Your task to perform on an android device: Open Reddit.com Image 0: 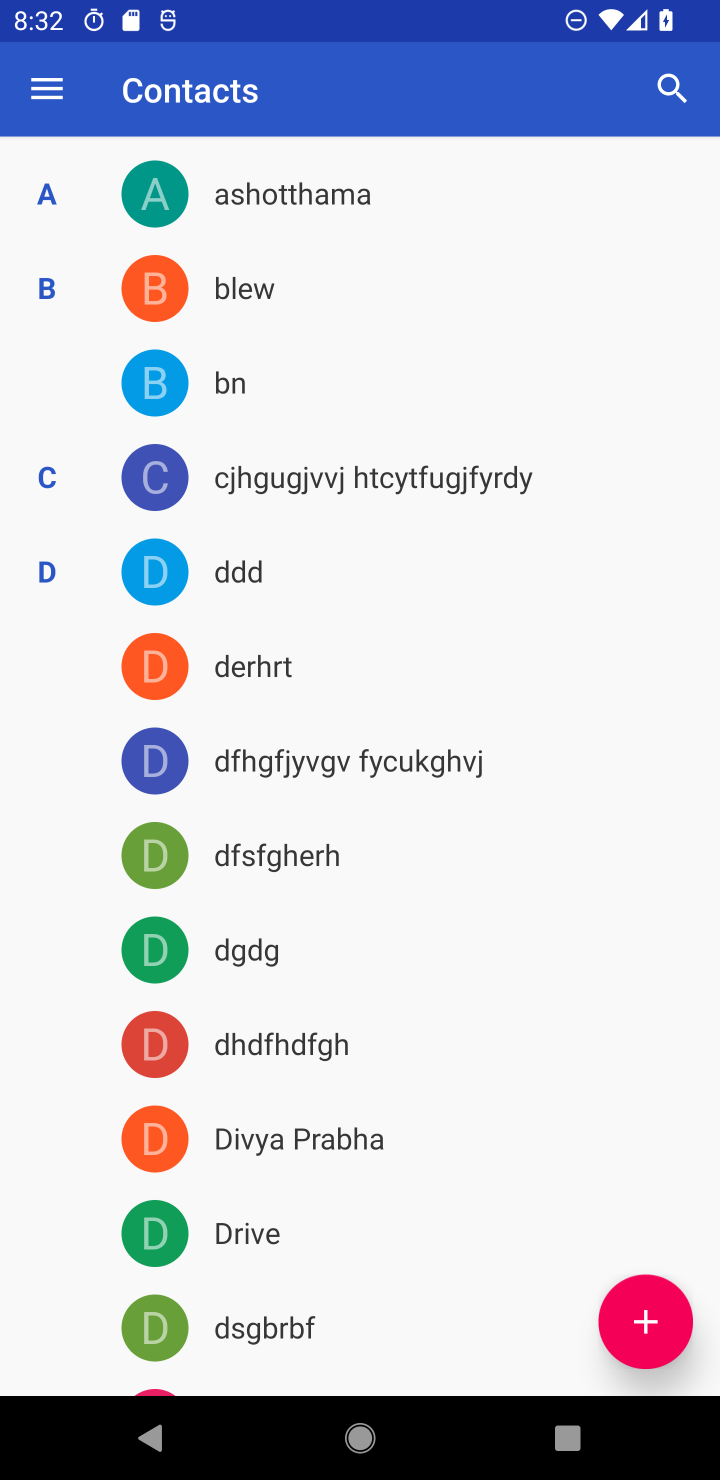
Step 0: press home button
Your task to perform on an android device: Open Reddit.com Image 1: 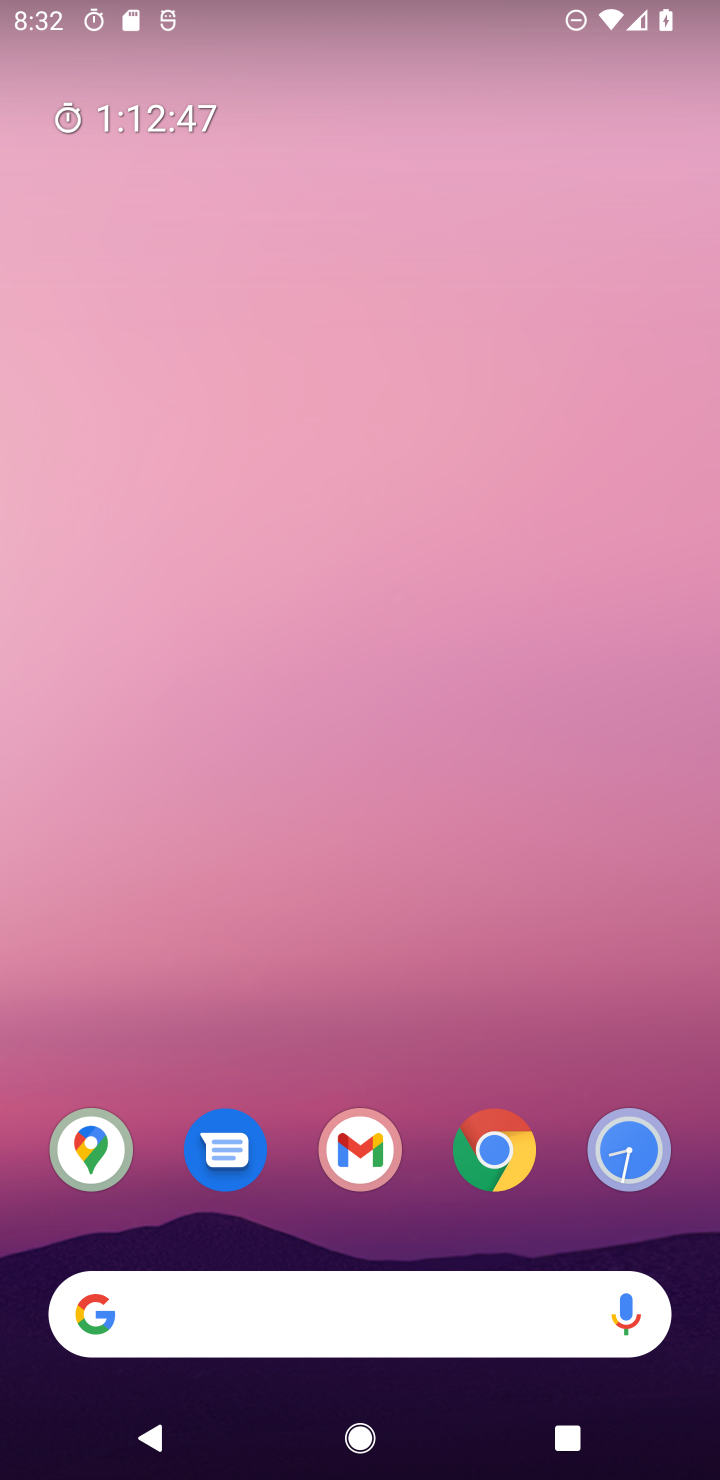
Step 1: drag from (207, 1071) to (210, 19)
Your task to perform on an android device: Open Reddit.com Image 2: 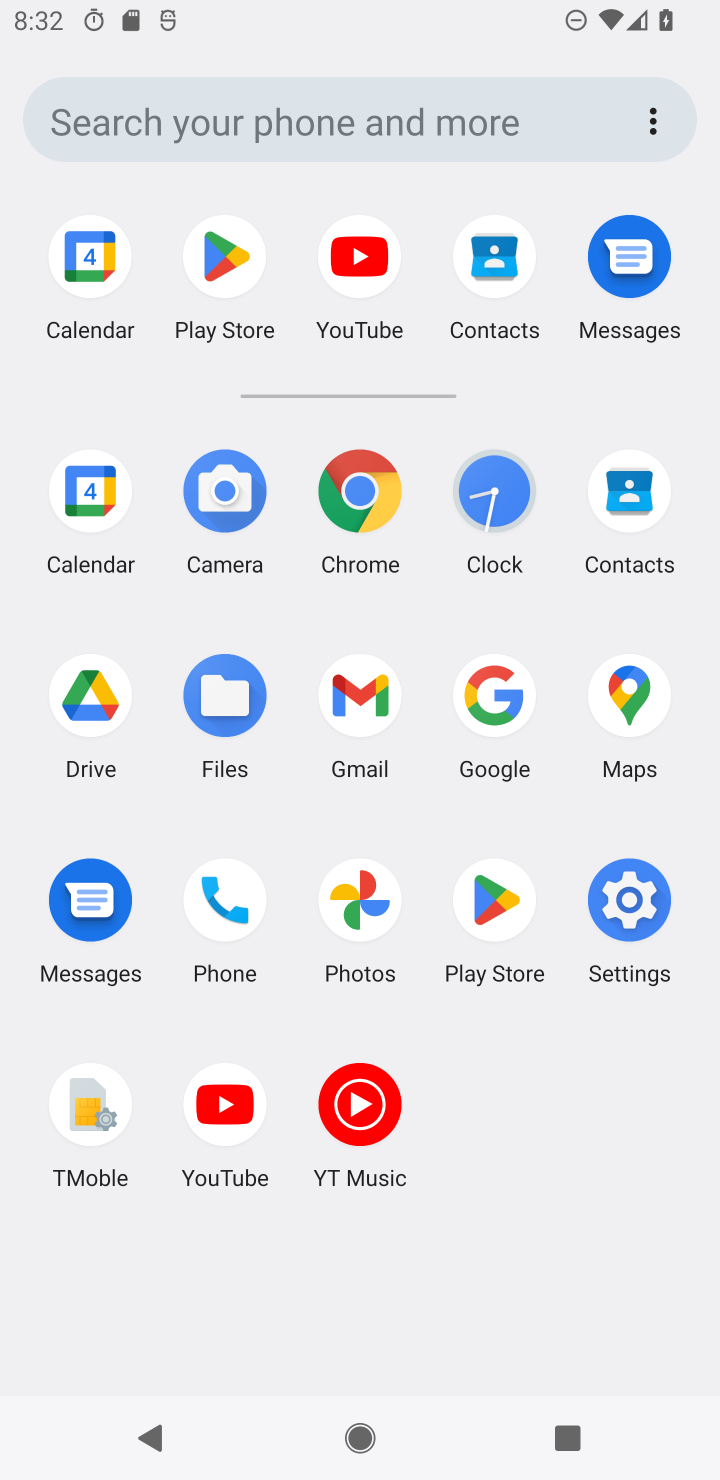
Step 2: click (356, 487)
Your task to perform on an android device: Open Reddit.com Image 3: 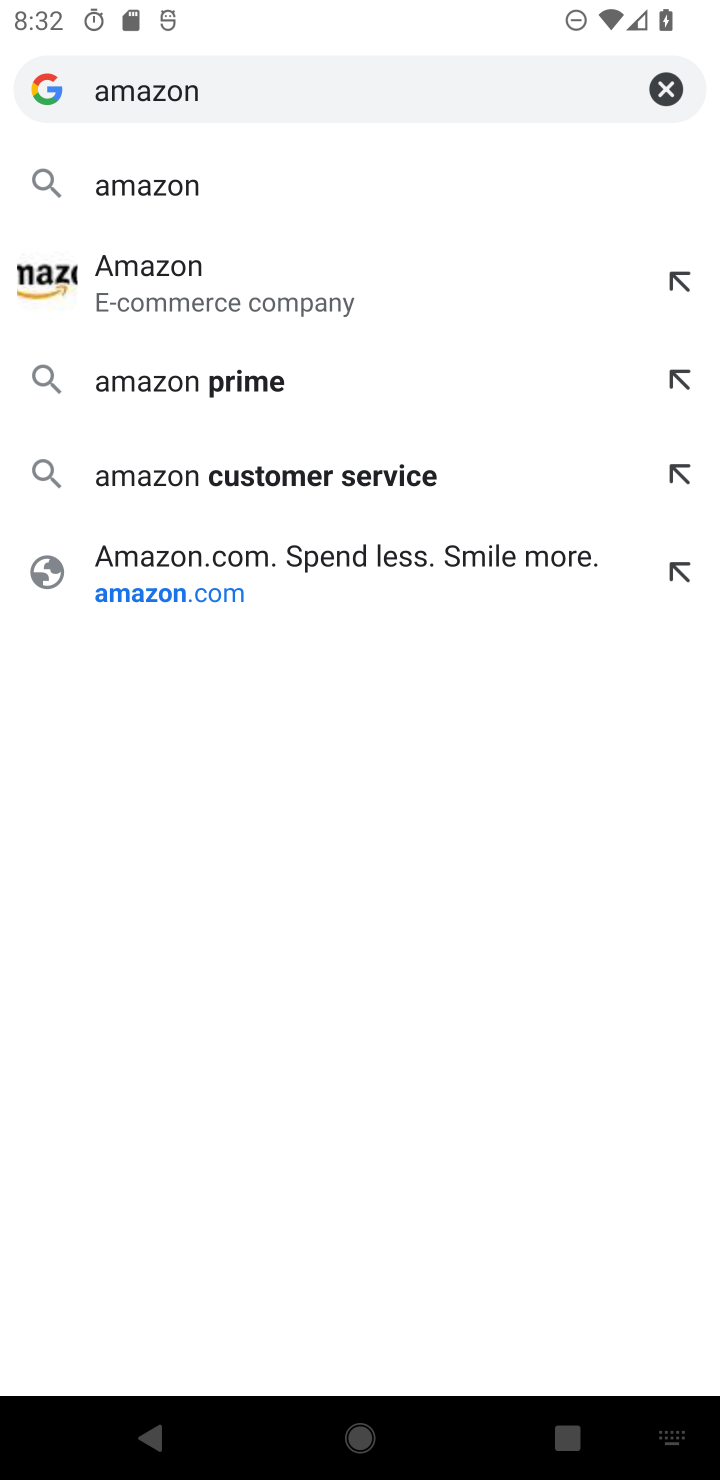
Step 3: click (668, 86)
Your task to perform on an android device: Open Reddit.com Image 4: 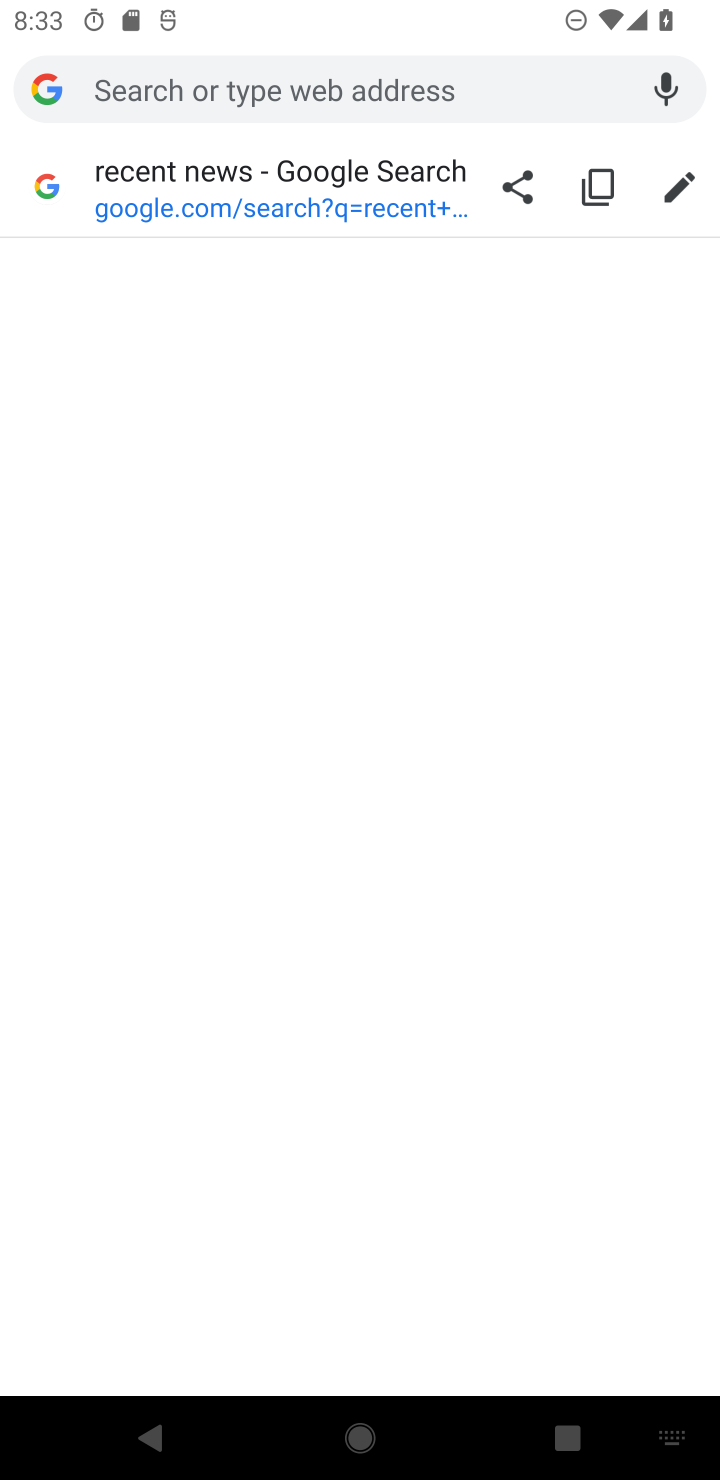
Step 4: type "reddit.com"
Your task to perform on an android device: Open Reddit.com Image 5: 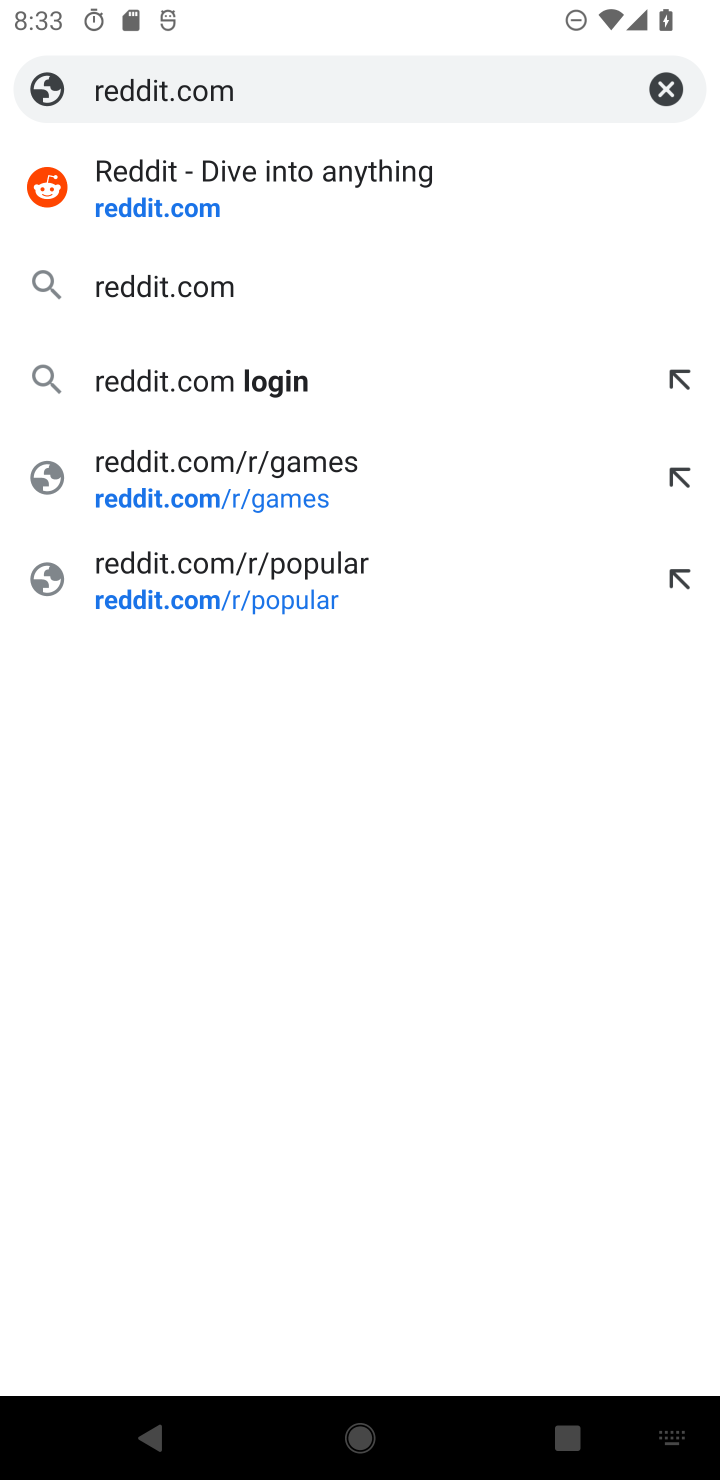
Step 5: click (197, 167)
Your task to perform on an android device: Open Reddit.com Image 6: 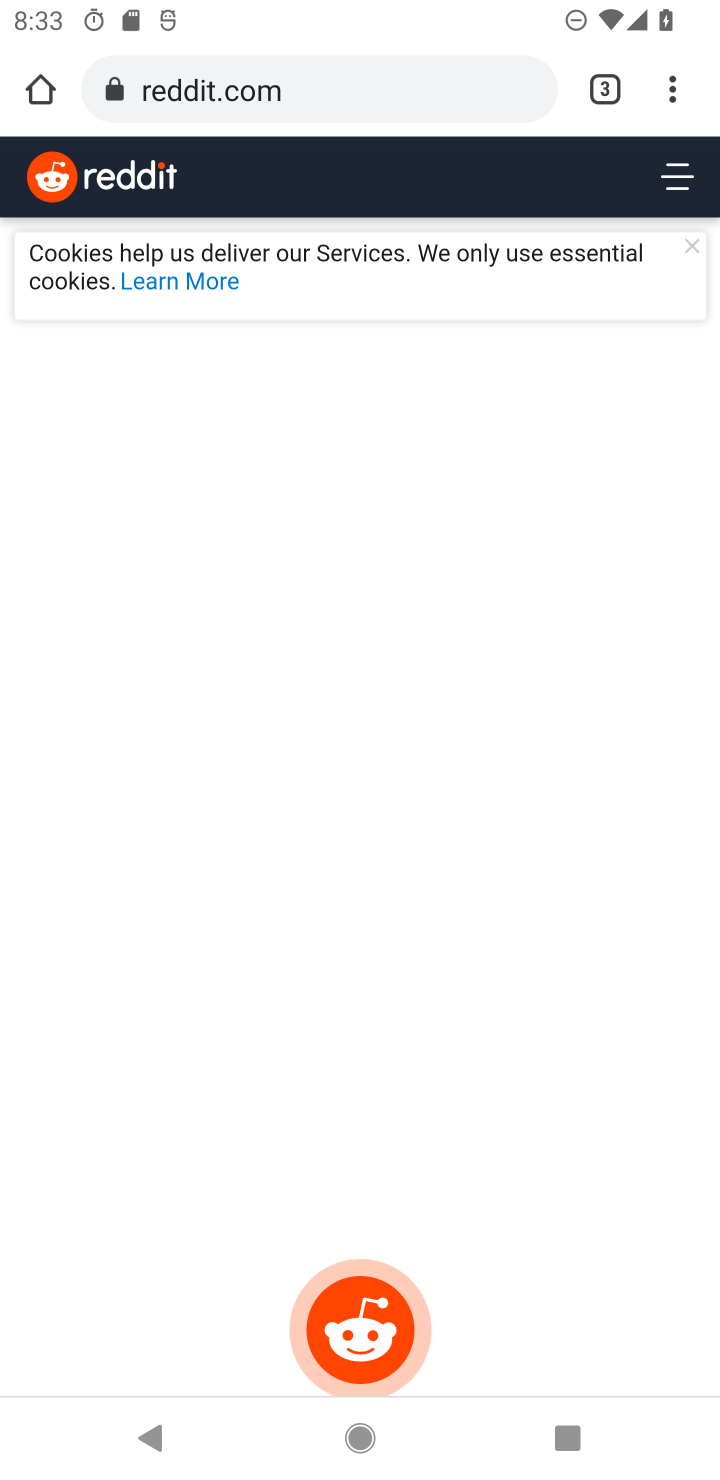
Step 6: task complete